Your task to perform on an android device: toggle wifi Image 0: 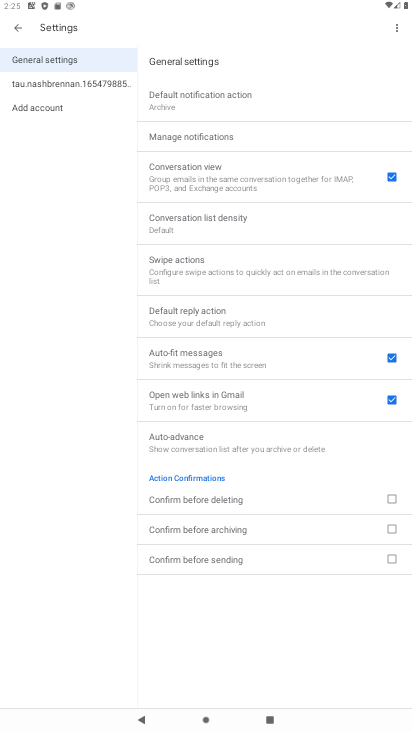
Step 0: press home button
Your task to perform on an android device: toggle wifi Image 1: 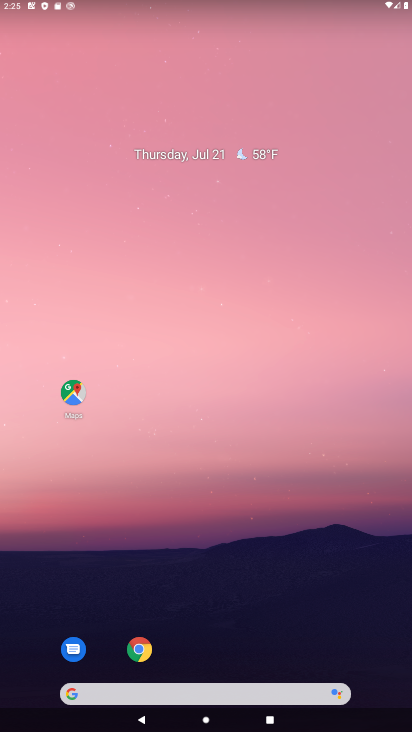
Step 1: drag from (265, 636) to (225, 4)
Your task to perform on an android device: toggle wifi Image 2: 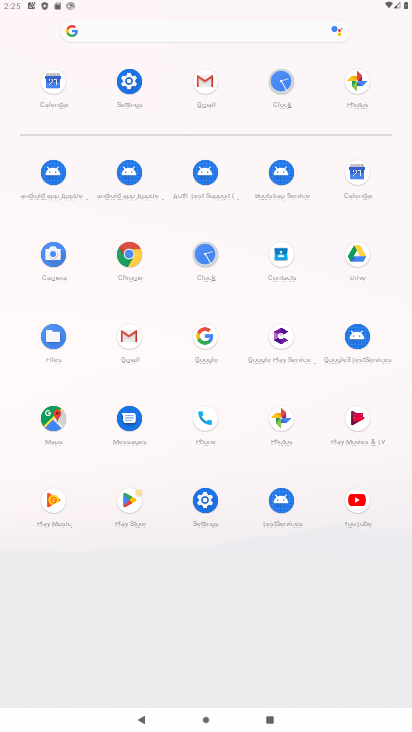
Step 2: click (130, 99)
Your task to perform on an android device: toggle wifi Image 3: 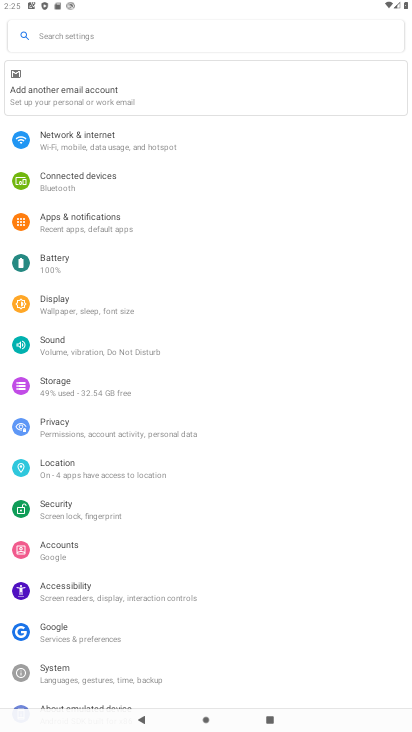
Step 3: click (287, 152)
Your task to perform on an android device: toggle wifi Image 4: 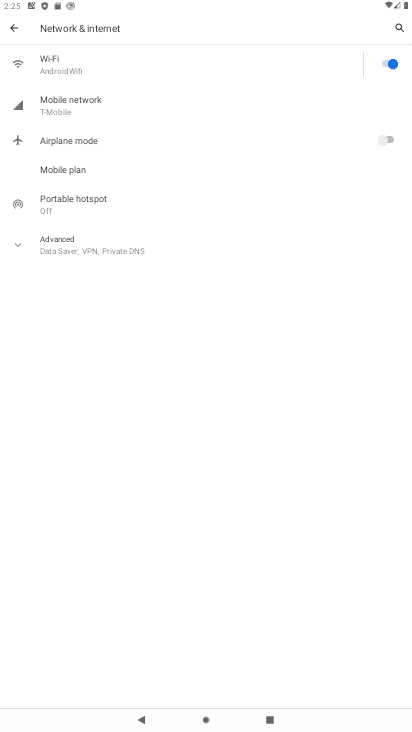
Step 4: click (135, 171)
Your task to perform on an android device: toggle wifi Image 5: 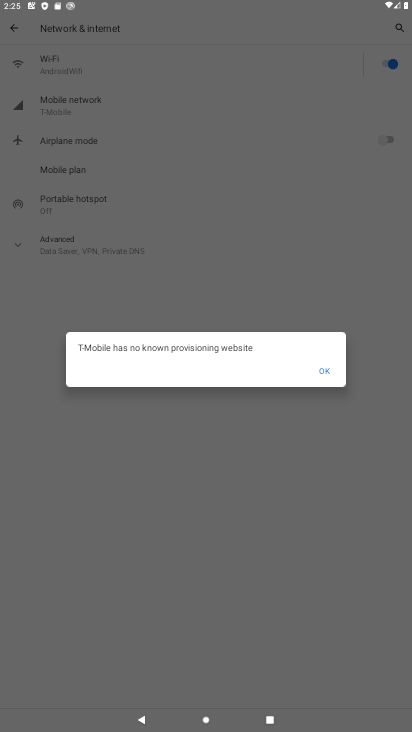
Step 5: task complete